Your task to perform on an android device: set an alarm Image 0: 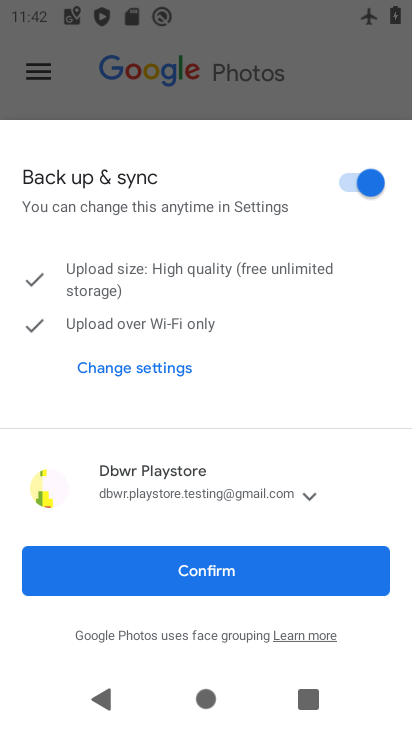
Step 0: press home button
Your task to perform on an android device: set an alarm Image 1: 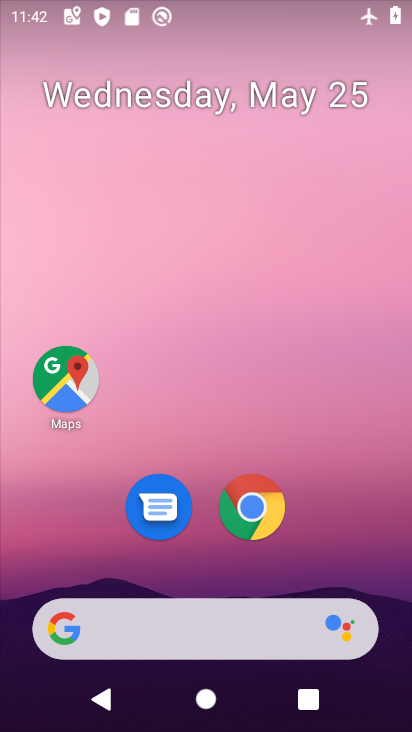
Step 1: drag from (332, 532) to (265, 156)
Your task to perform on an android device: set an alarm Image 2: 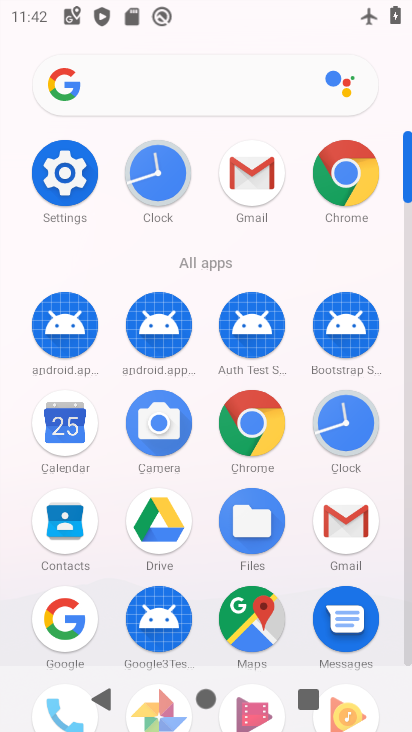
Step 2: click (347, 423)
Your task to perform on an android device: set an alarm Image 3: 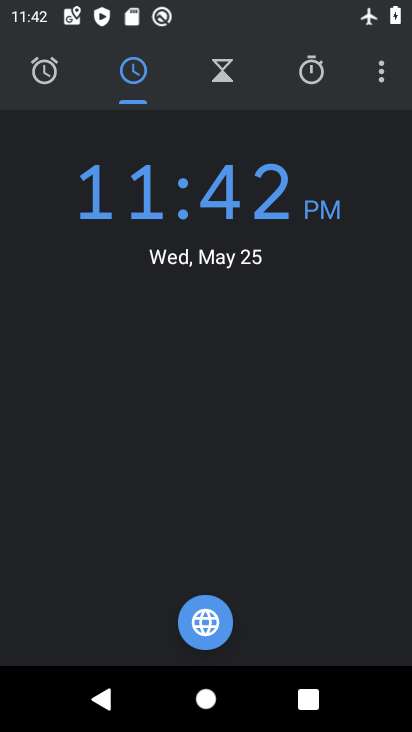
Step 3: click (44, 72)
Your task to perform on an android device: set an alarm Image 4: 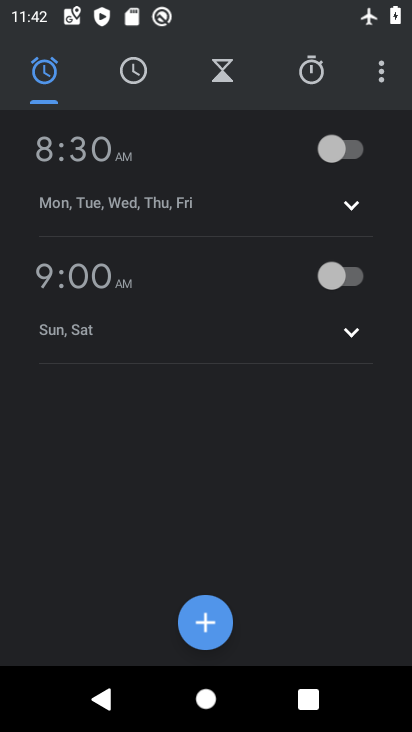
Step 4: click (205, 620)
Your task to perform on an android device: set an alarm Image 5: 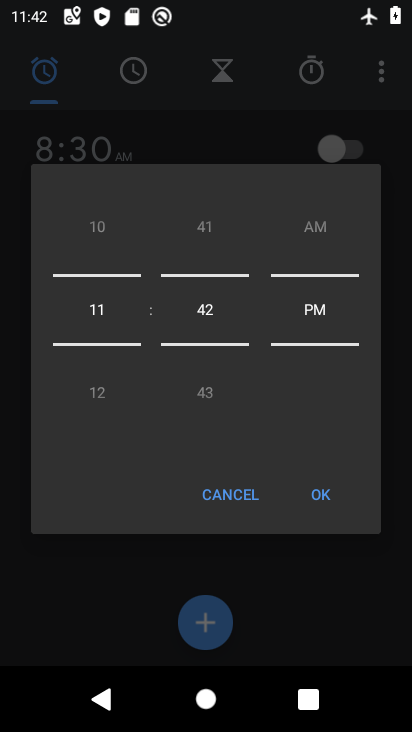
Step 5: drag from (115, 228) to (120, 322)
Your task to perform on an android device: set an alarm Image 6: 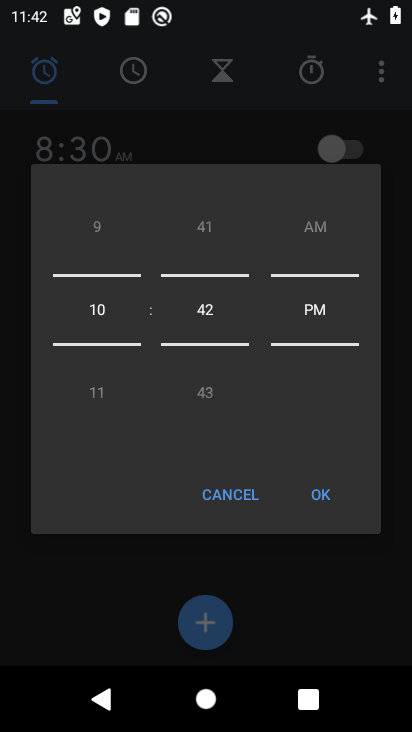
Step 6: click (110, 339)
Your task to perform on an android device: set an alarm Image 7: 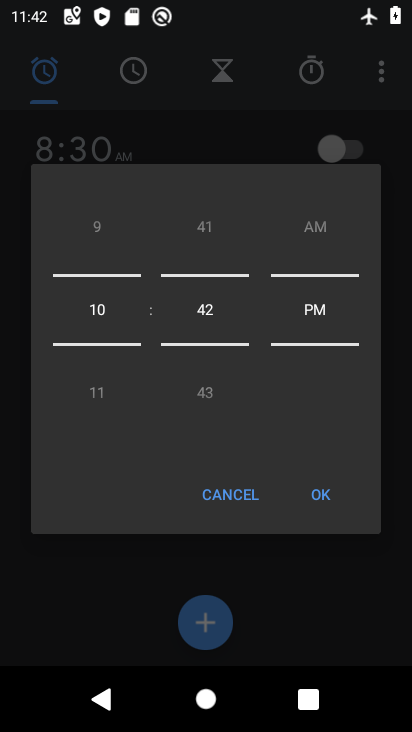
Step 7: click (126, 346)
Your task to perform on an android device: set an alarm Image 8: 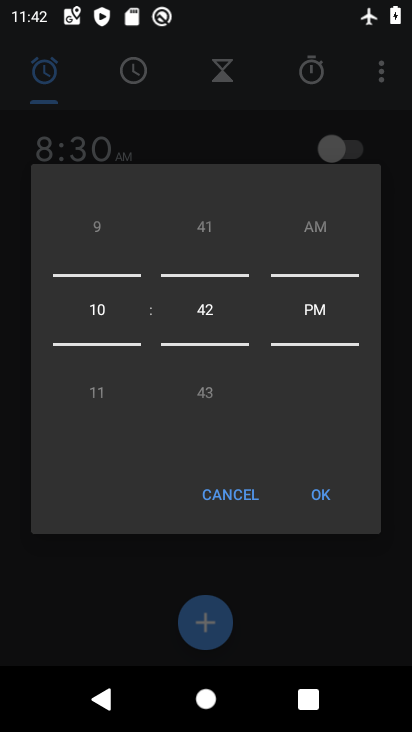
Step 8: drag from (102, 233) to (87, 413)
Your task to perform on an android device: set an alarm Image 9: 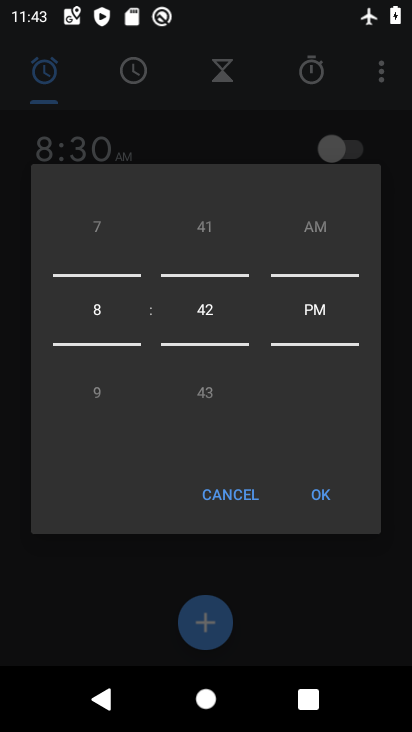
Step 9: drag from (220, 236) to (207, 392)
Your task to perform on an android device: set an alarm Image 10: 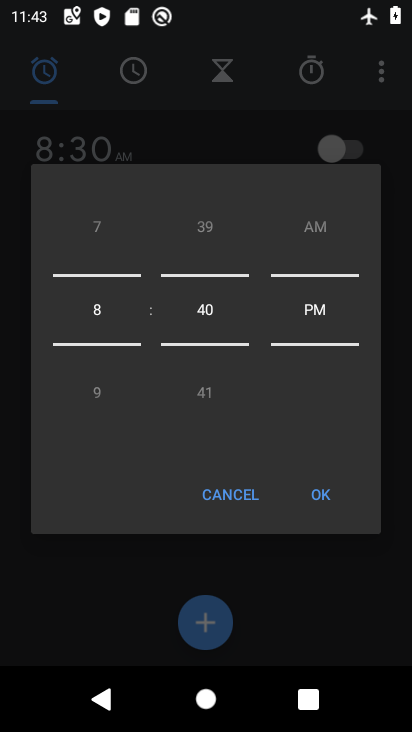
Step 10: click (222, 341)
Your task to perform on an android device: set an alarm Image 11: 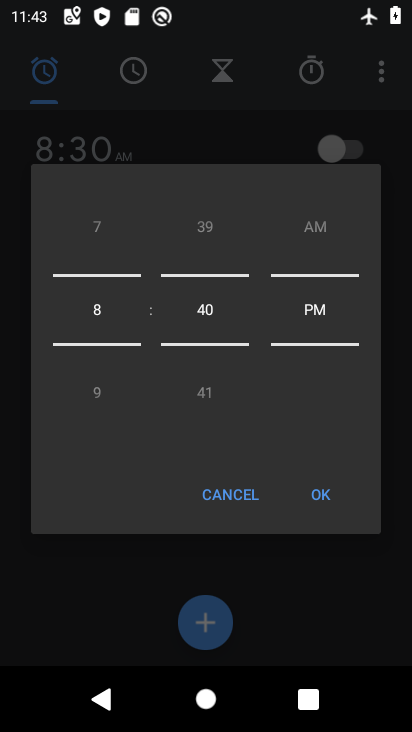
Step 11: drag from (197, 219) to (208, 380)
Your task to perform on an android device: set an alarm Image 12: 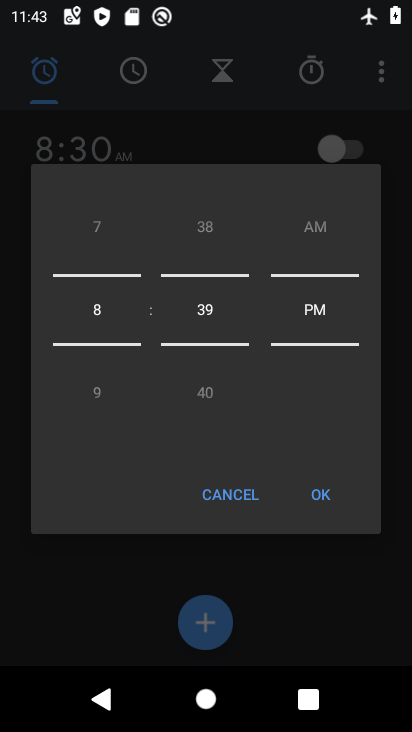
Step 12: click (321, 490)
Your task to perform on an android device: set an alarm Image 13: 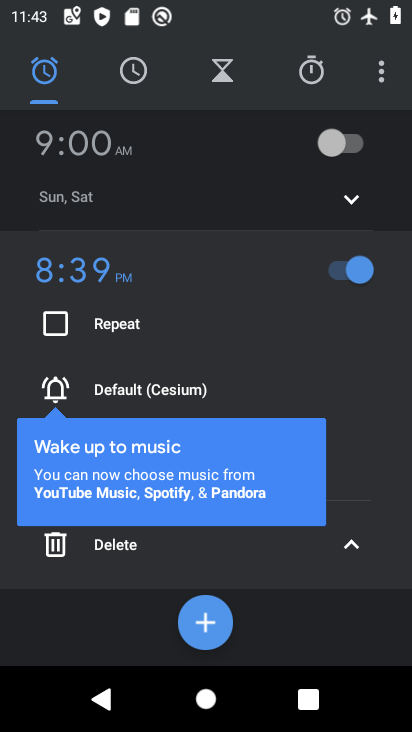
Step 13: click (353, 549)
Your task to perform on an android device: set an alarm Image 14: 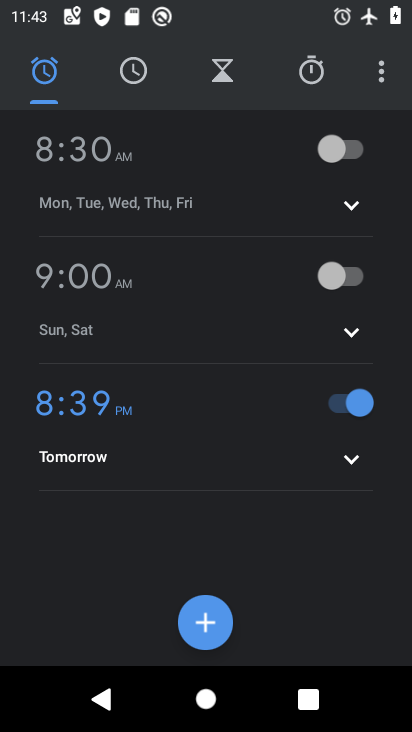
Step 14: task complete